Your task to perform on an android device: Open CNN.com Image 0: 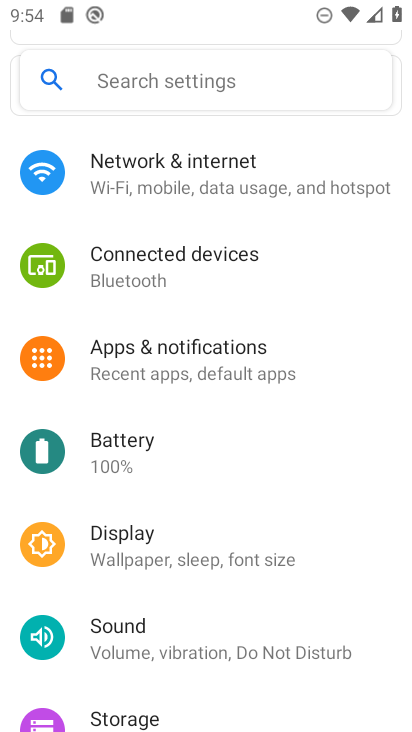
Step 0: press home button
Your task to perform on an android device: Open CNN.com Image 1: 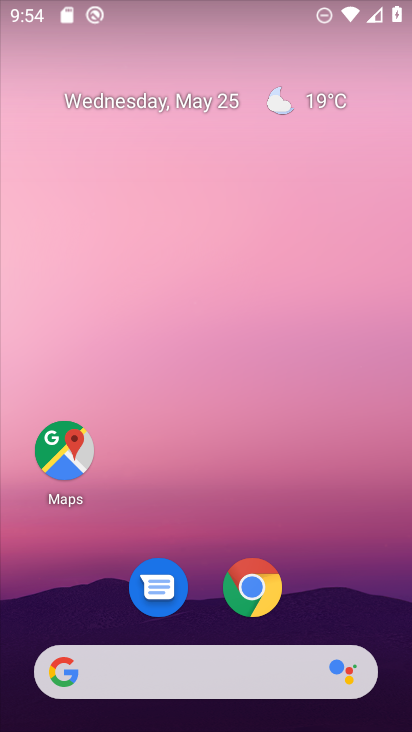
Step 1: click (258, 587)
Your task to perform on an android device: Open CNN.com Image 2: 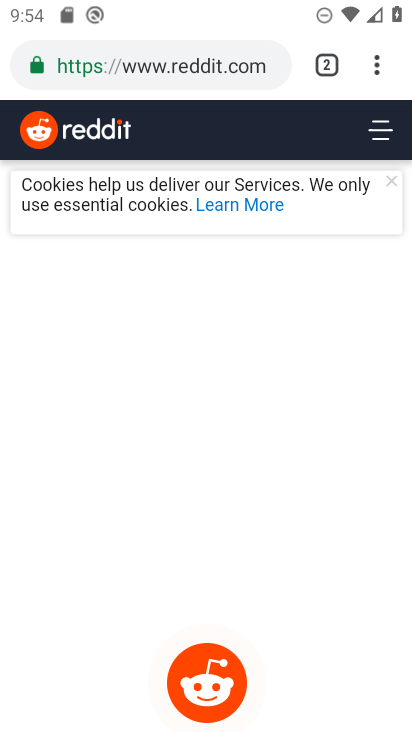
Step 2: click (268, 65)
Your task to perform on an android device: Open CNN.com Image 3: 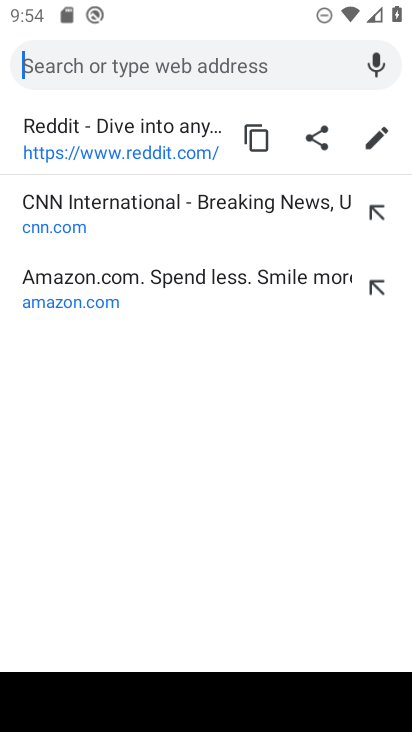
Step 3: type "cnn.com"
Your task to perform on an android device: Open CNN.com Image 4: 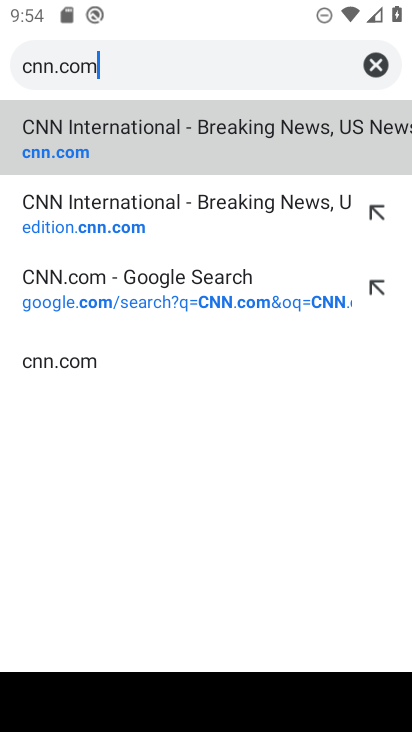
Step 4: click (57, 140)
Your task to perform on an android device: Open CNN.com Image 5: 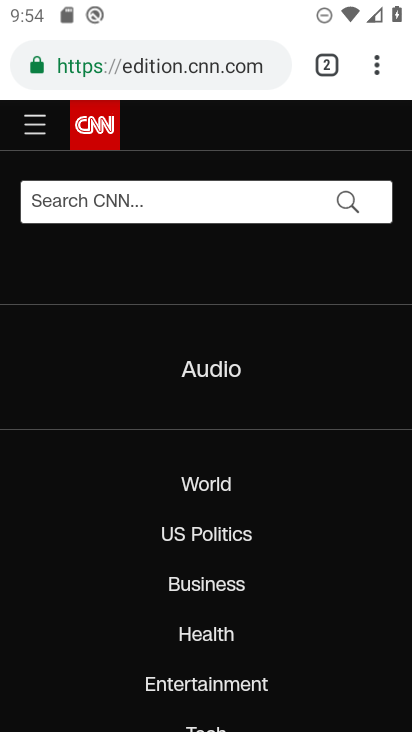
Step 5: task complete